Your task to perform on an android device: Open the calendar and show me this week's events? Image 0: 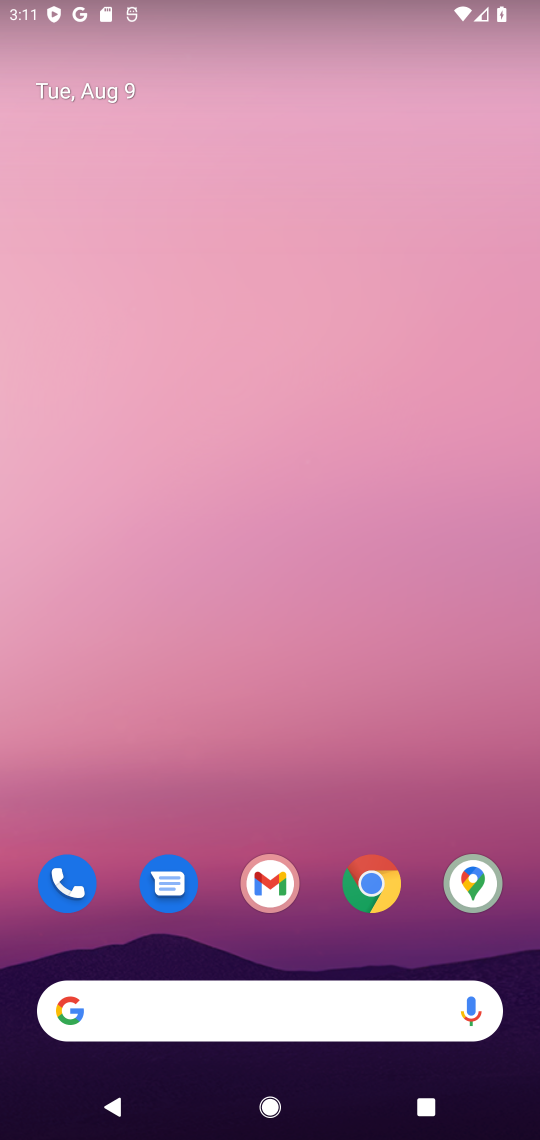
Step 0: drag from (440, 947) to (409, 164)
Your task to perform on an android device: Open the calendar and show me this week's events? Image 1: 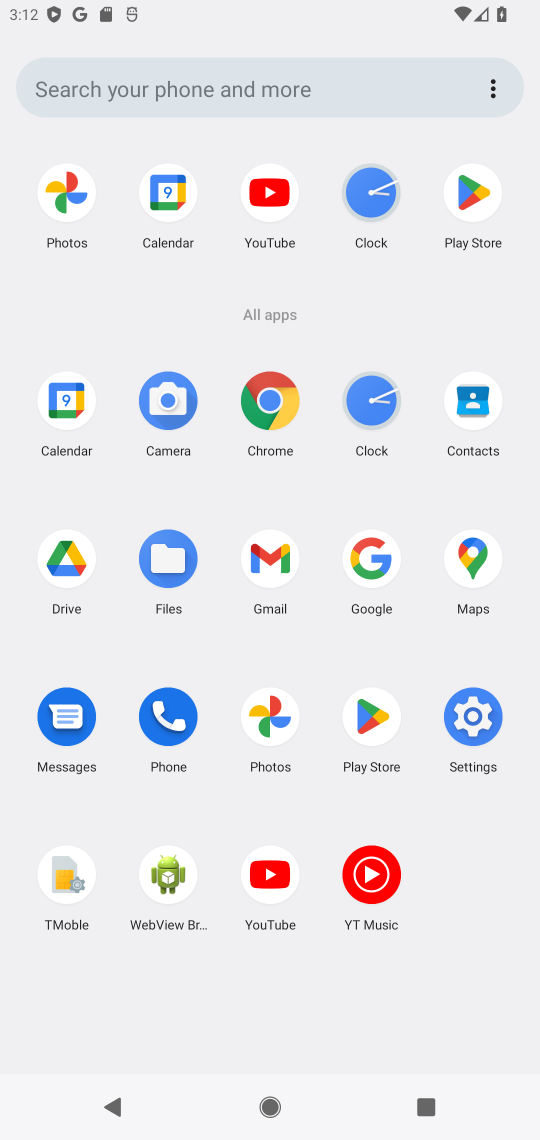
Step 1: click (65, 396)
Your task to perform on an android device: Open the calendar and show me this week's events? Image 2: 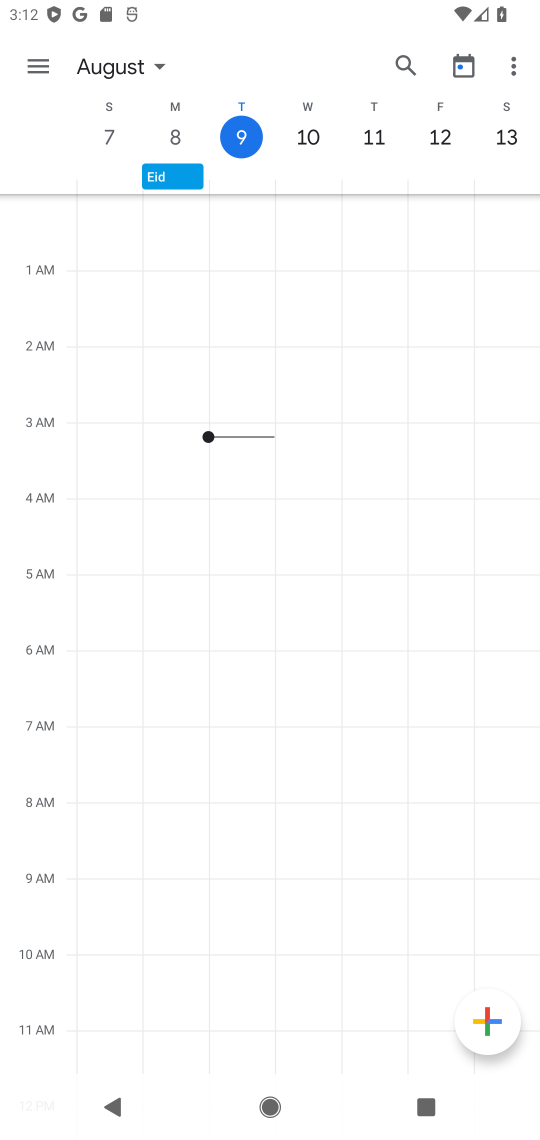
Step 2: click (31, 67)
Your task to perform on an android device: Open the calendar and show me this week's events? Image 3: 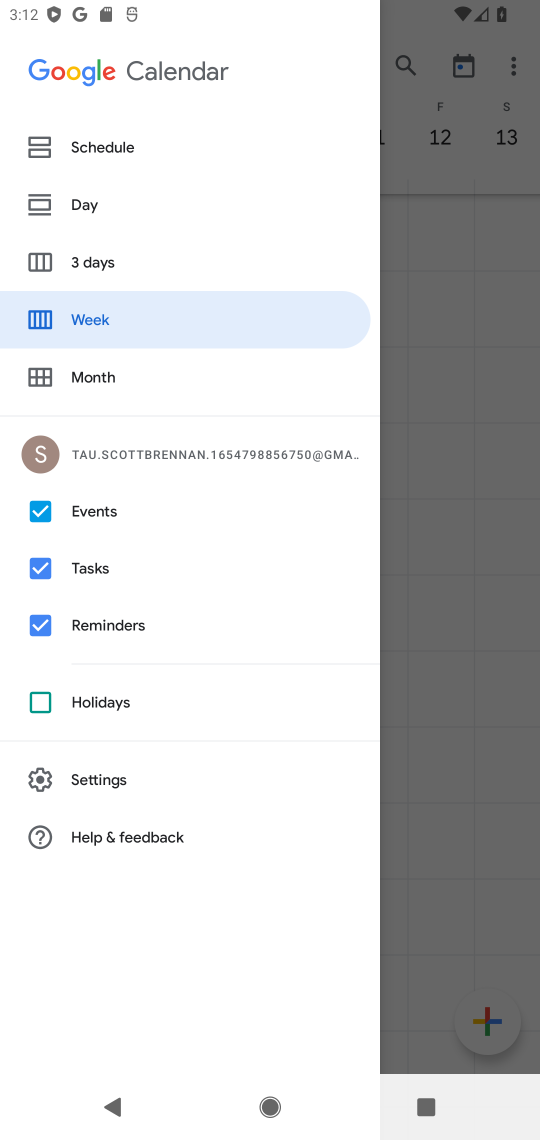
Step 3: click (129, 310)
Your task to perform on an android device: Open the calendar and show me this week's events? Image 4: 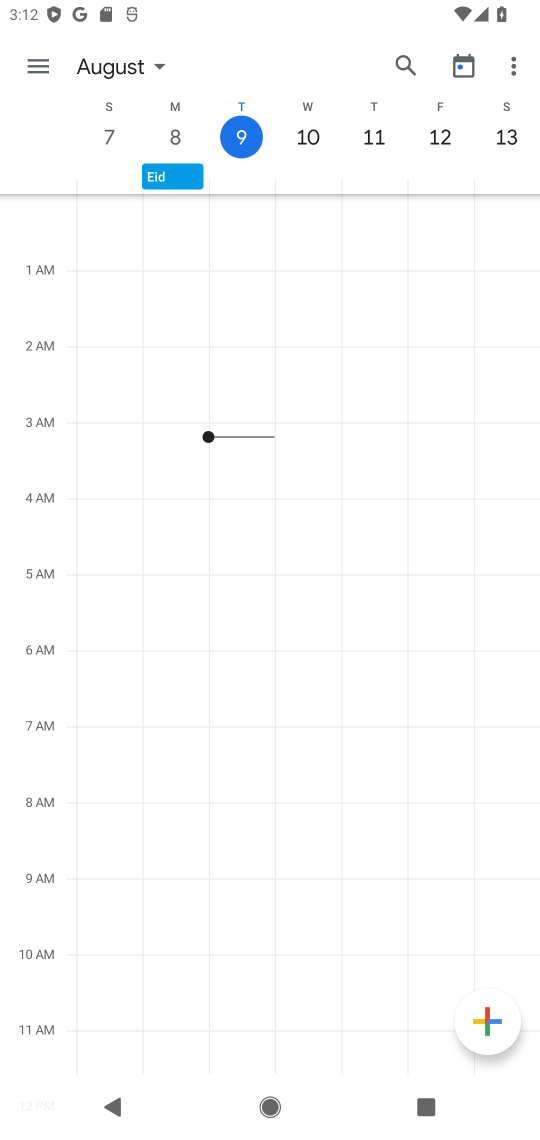
Step 4: task complete